Your task to perform on an android device: create a new album in the google photos Image 0: 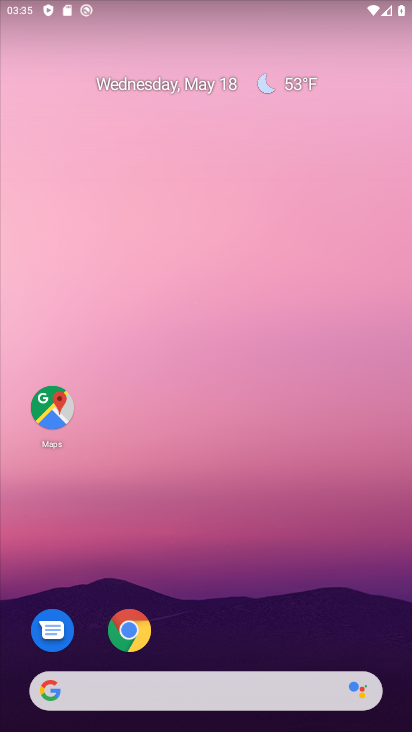
Step 0: drag from (184, 714) to (177, 117)
Your task to perform on an android device: create a new album in the google photos Image 1: 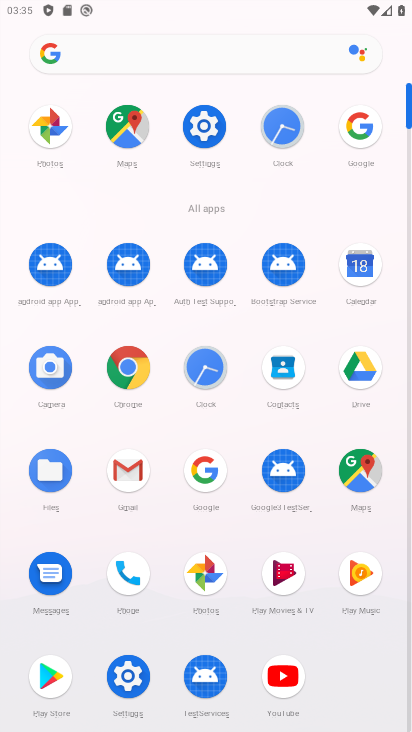
Step 1: click (207, 564)
Your task to perform on an android device: create a new album in the google photos Image 2: 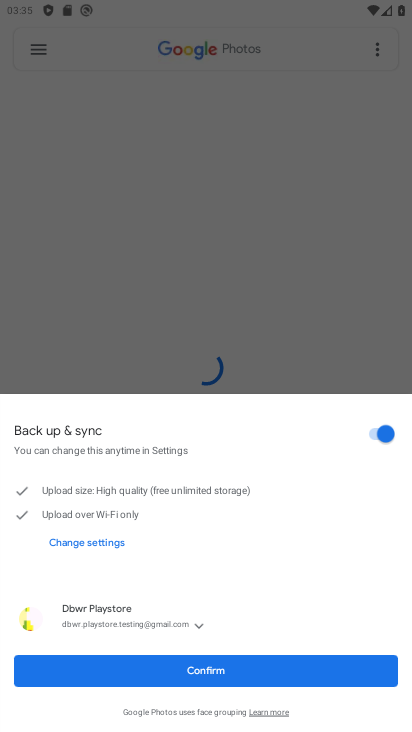
Step 2: click (213, 670)
Your task to perform on an android device: create a new album in the google photos Image 3: 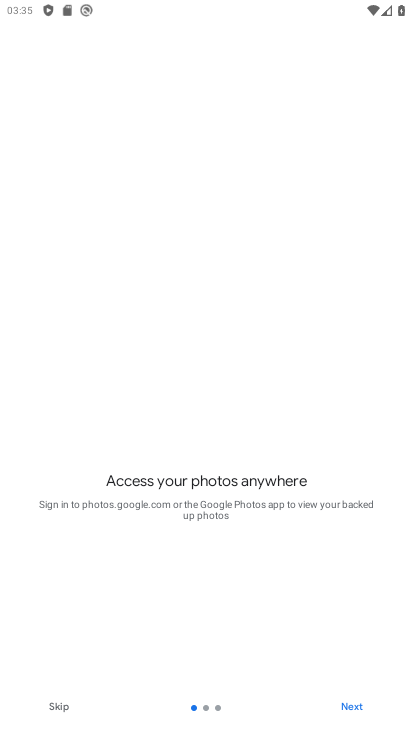
Step 3: click (348, 699)
Your task to perform on an android device: create a new album in the google photos Image 4: 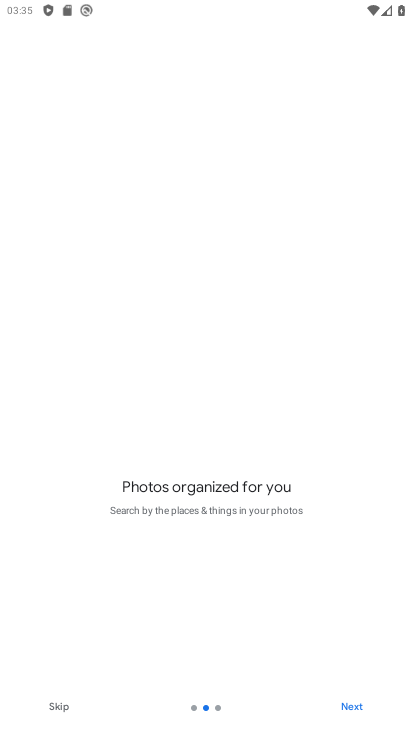
Step 4: click (348, 699)
Your task to perform on an android device: create a new album in the google photos Image 5: 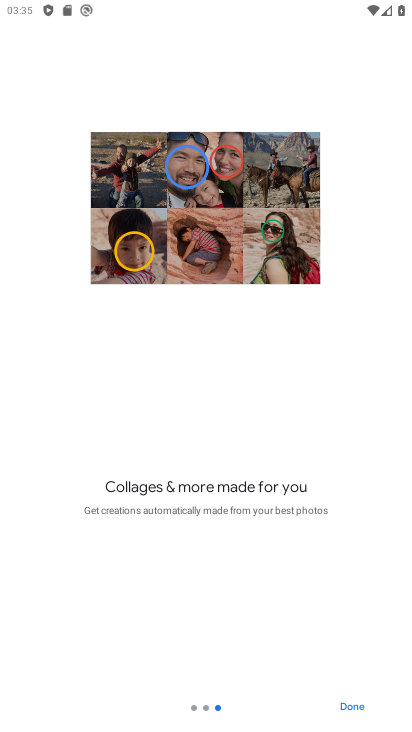
Step 5: click (348, 699)
Your task to perform on an android device: create a new album in the google photos Image 6: 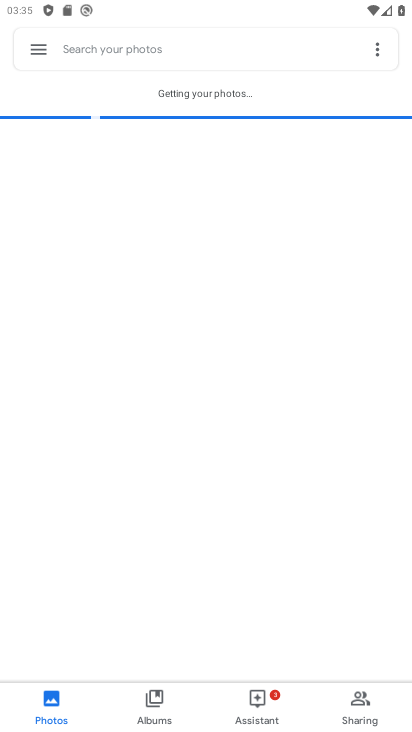
Step 6: click (378, 53)
Your task to perform on an android device: create a new album in the google photos Image 7: 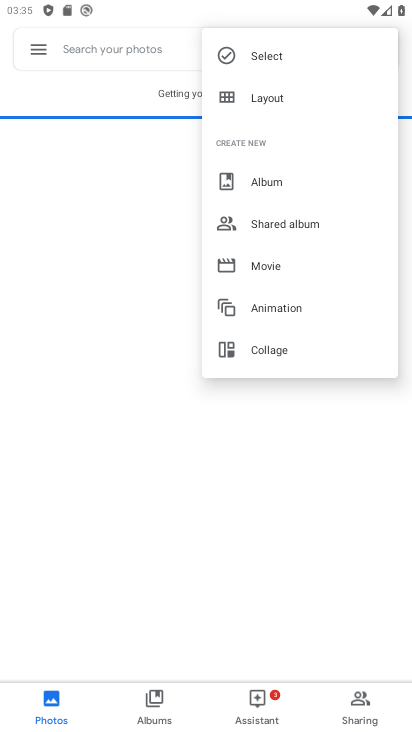
Step 7: click (273, 178)
Your task to perform on an android device: create a new album in the google photos Image 8: 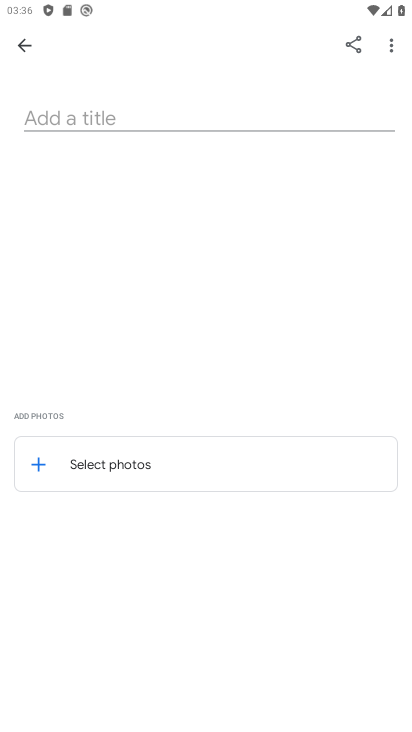
Step 8: click (160, 111)
Your task to perform on an android device: create a new album in the google photos Image 9: 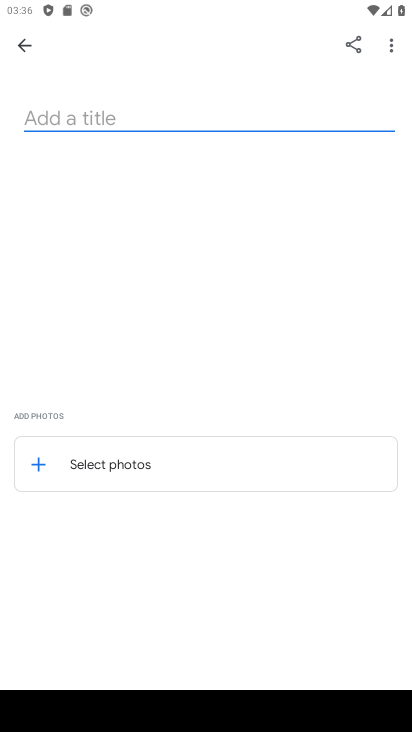
Step 9: type "nnnbvbvbv"
Your task to perform on an android device: create a new album in the google photos Image 10: 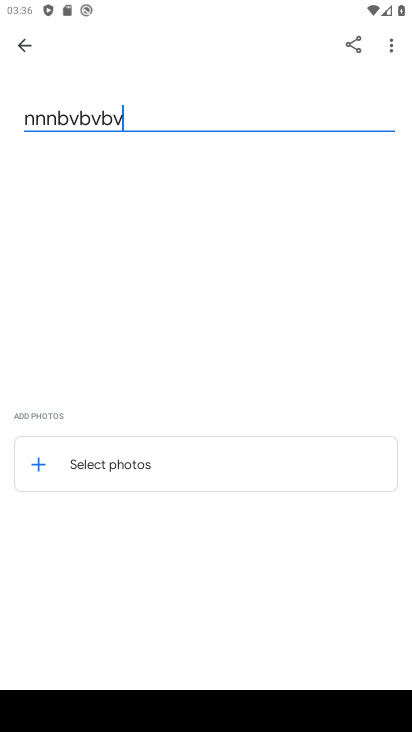
Step 10: click (71, 458)
Your task to perform on an android device: create a new album in the google photos Image 11: 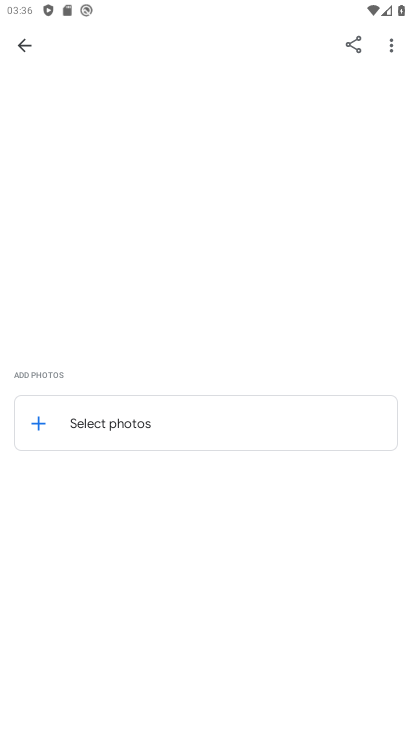
Step 11: click (38, 418)
Your task to perform on an android device: create a new album in the google photos Image 12: 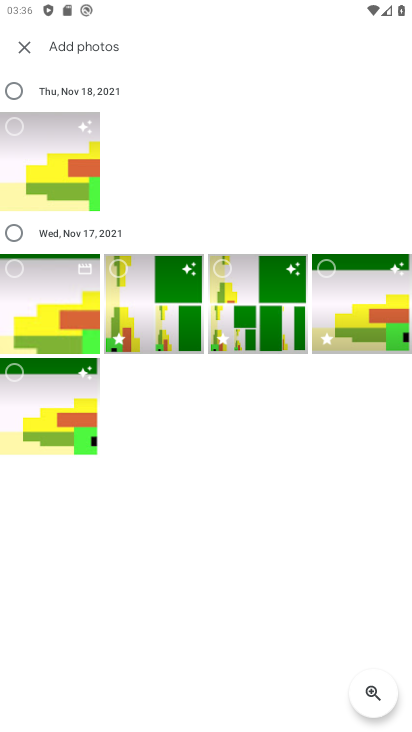
Step 12: click (15, 269)
Your task to perform on an android device: create a new album in the google photos Image 13: 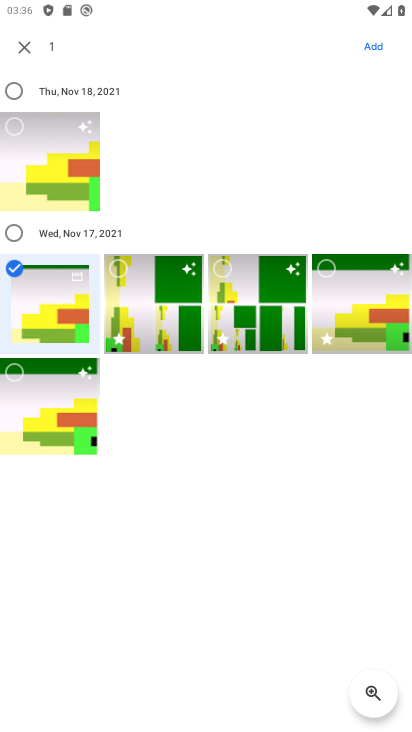
Step 13: click (217, 271)
Your task to perform on an android device: create a new album in the google photos Image 14: 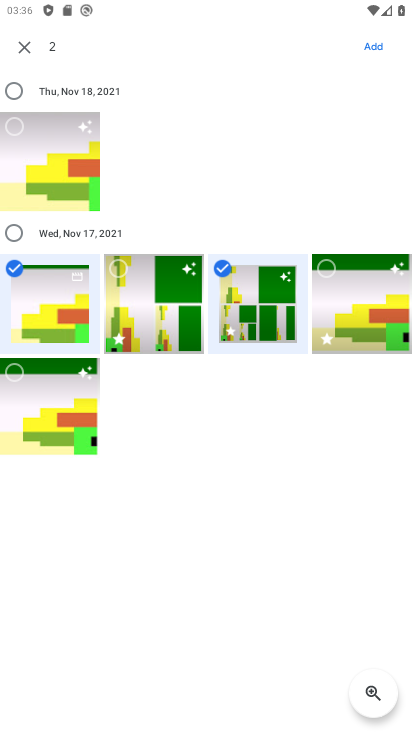
Step 14: click (364, 46)
Your task to perform on an android device: create a new album in the google photos Image 15: 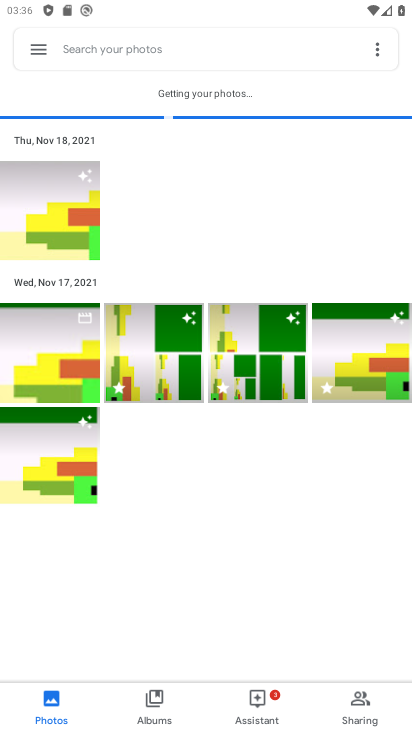
Step 15: task complete